Your task to perform on an android device: What's on my calendar tomorrow? Image 0: 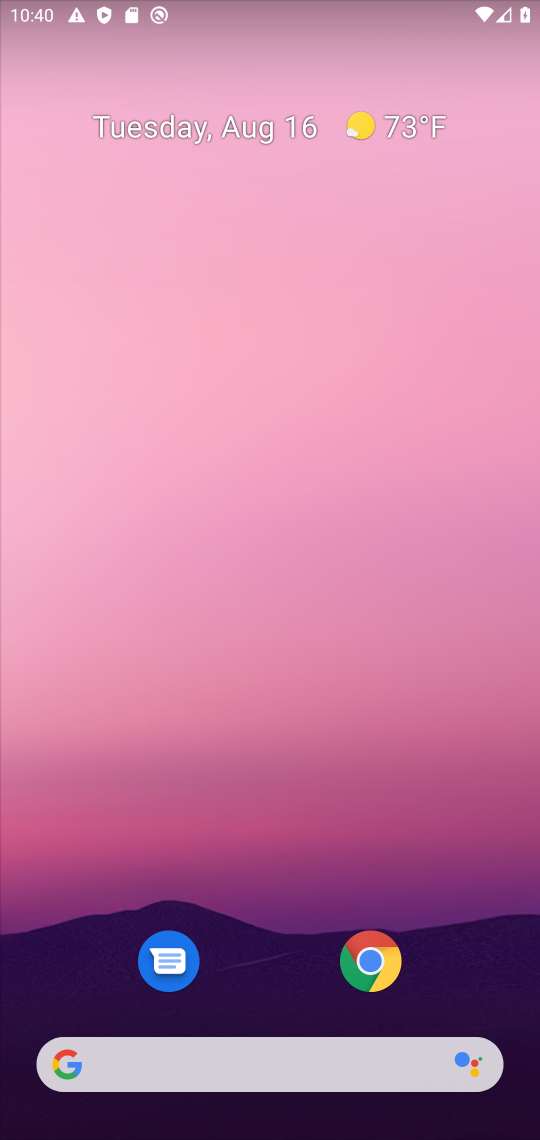
Step 0: drag from (261, 895) to (352, 111)
Your task to perform on an android device: What's on my calendar tomorrow? Image 1: 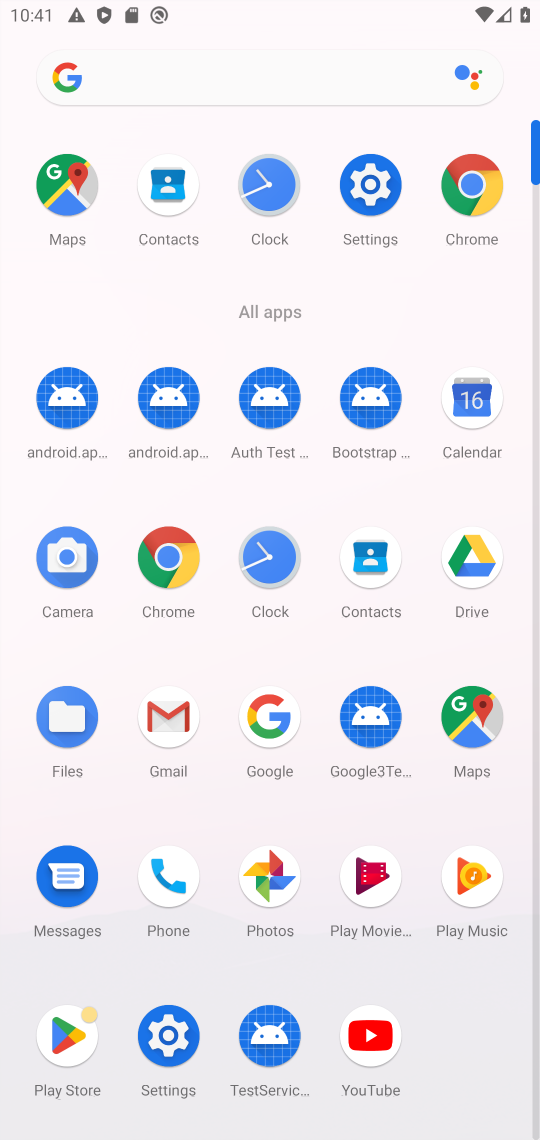
Step 1: click (472, 407)
Your task to perform on an android device: What's on my calendar tomorrow? Image 2: 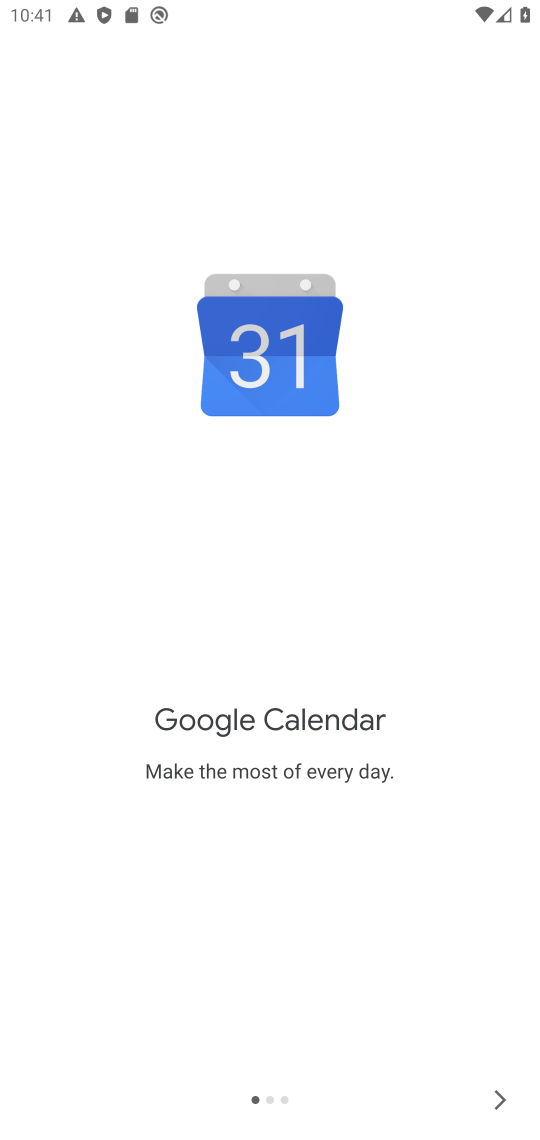
Step 2: click (510, 1095)
Your task to perform on an android device: What's on my calendar tomorrow? Image 3: 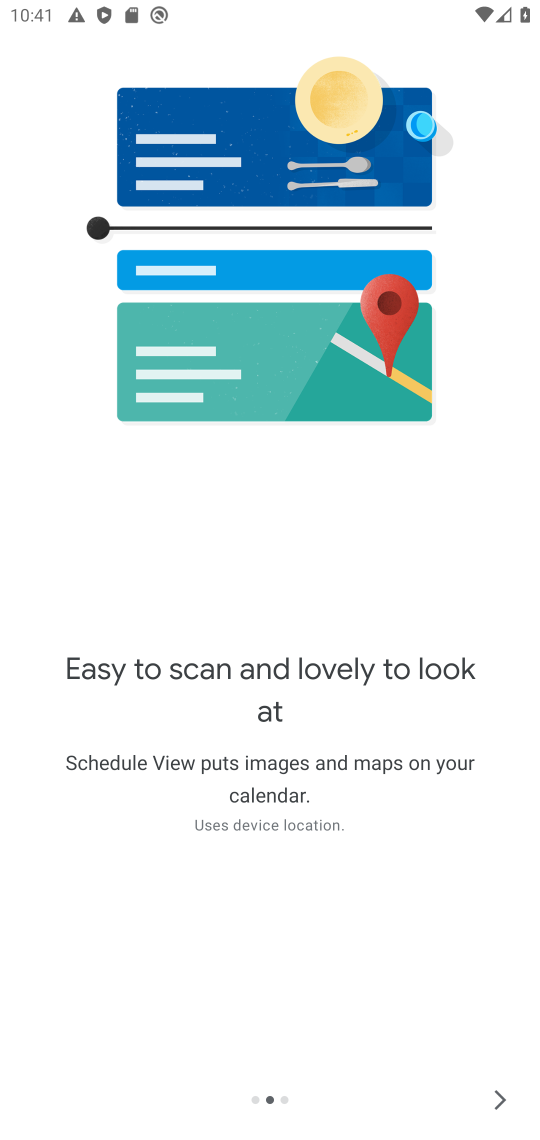
Step 3: click (494, 1101)
Your task to perform on an android device: What's on my calendar tomorrow? Image 4: 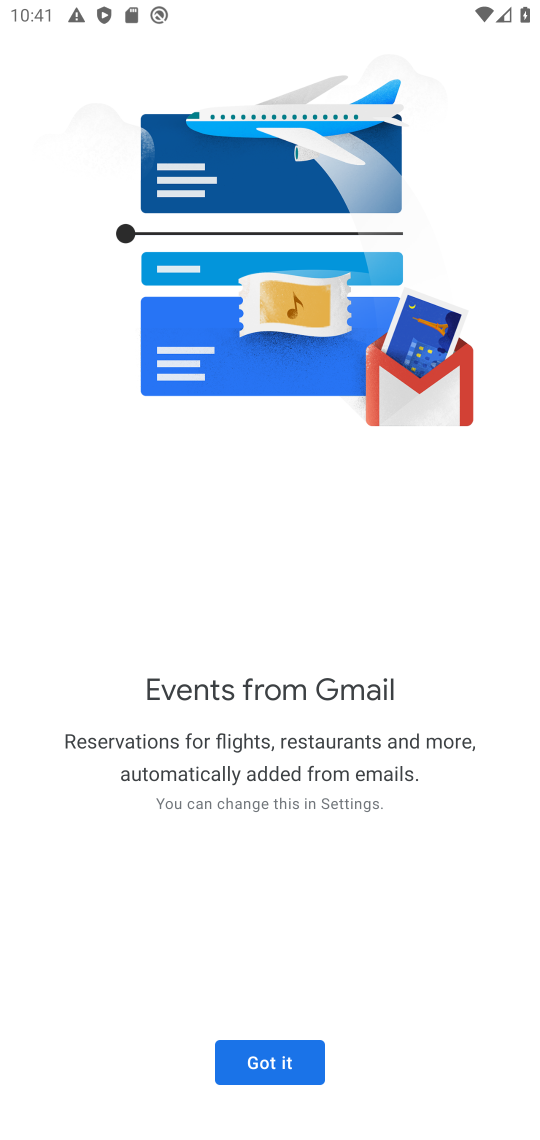
Step 4: click (259, 1075)
Your task to perform on an android device: What's on my calendar tomorrow? Image 5: 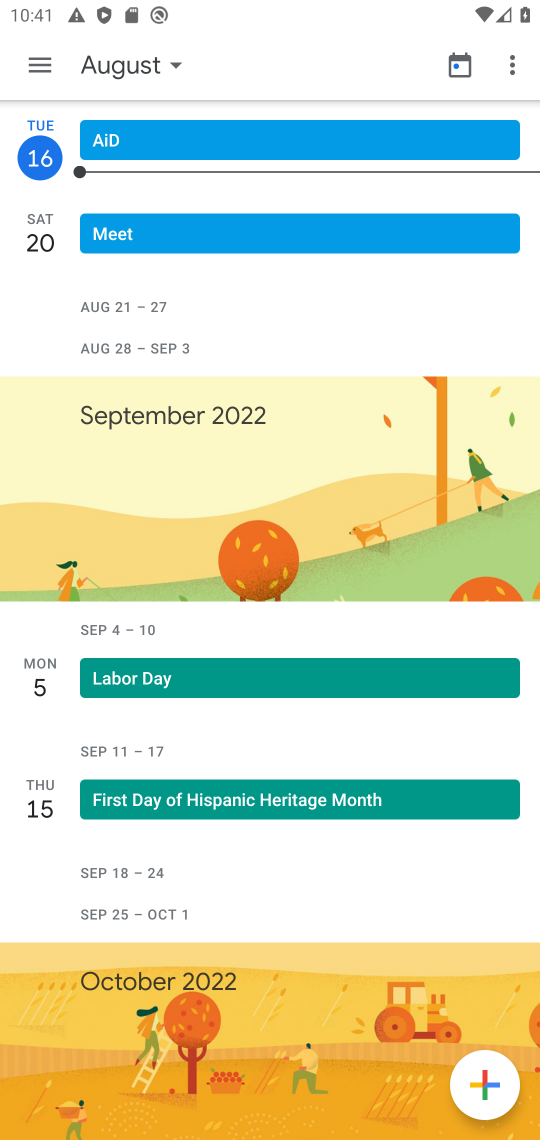
Step 5: press home button
Your task to perform on an android device: What's on my calendar tomorrow? Image 6: 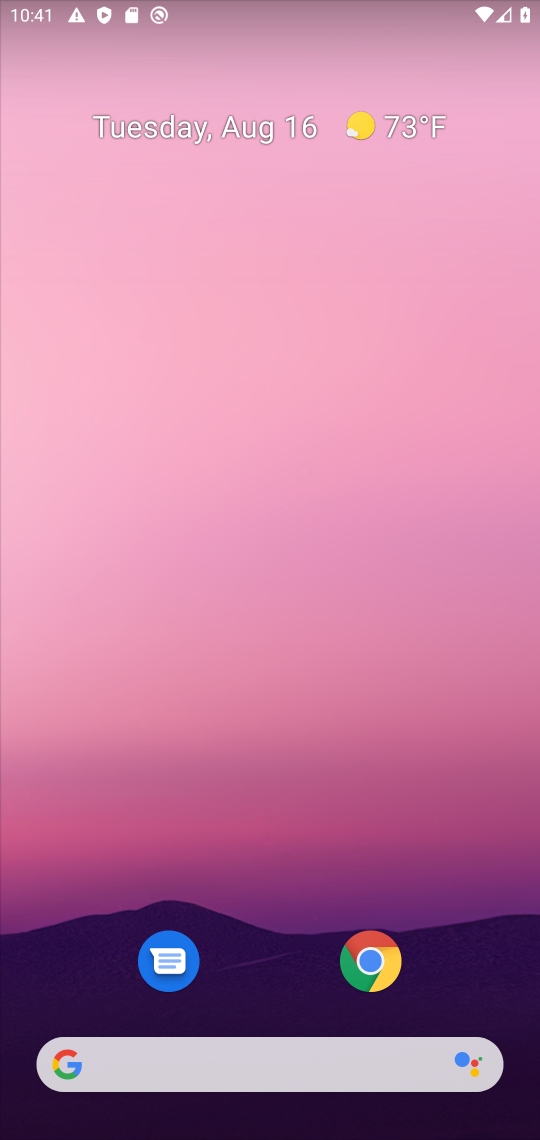
Step 6: drag from (286, 912) to (367, 383)
Your task to perform on an android device: What's on my calendar tomorrow? Image 7: 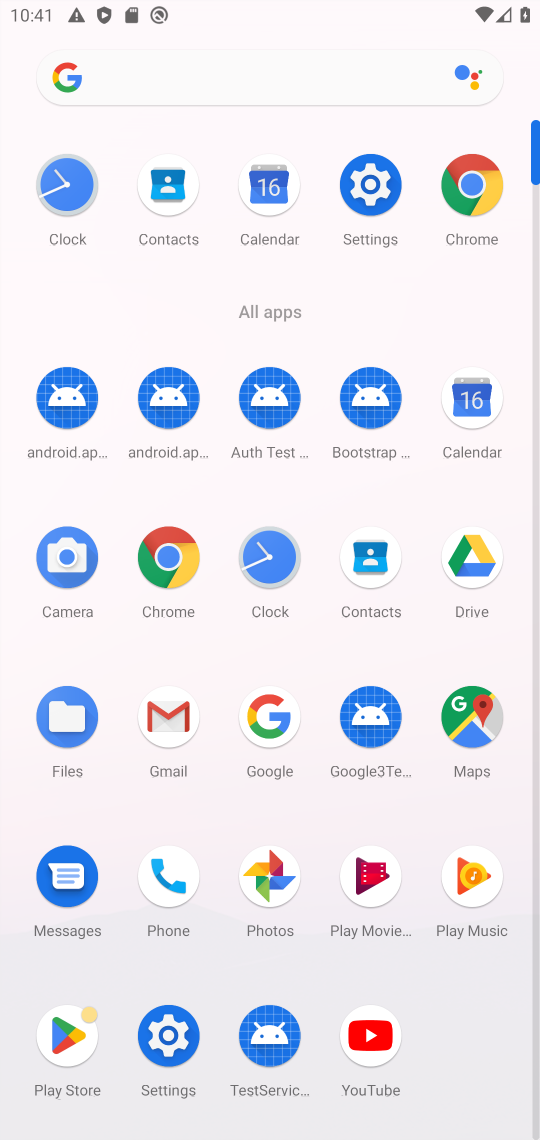
Step 7: click (465, 406)
Your task to perform on an android device: What's on my calendar tomorrow? Image 8: 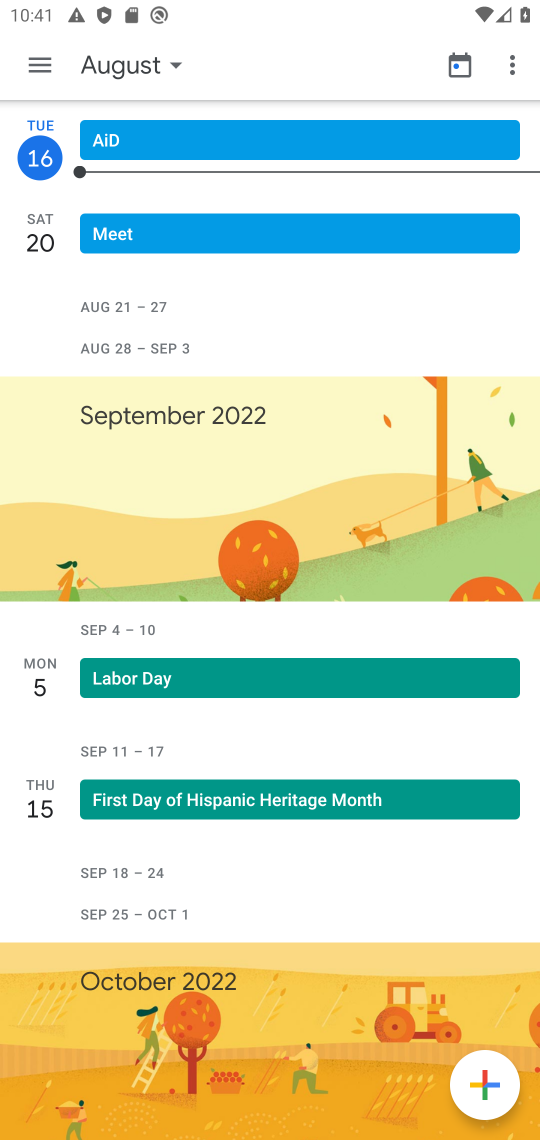
Step 8: task complete